Your task to perform on an android device: move a message to another label in the gmail app Image 0: 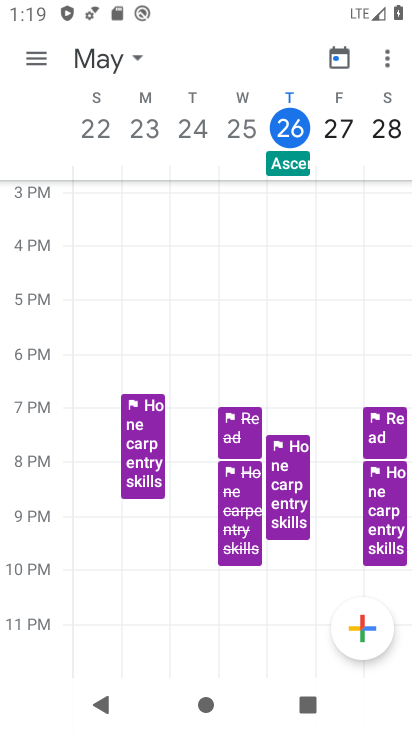
Step 0: press home button
Your task to perform on an android device: move a message to another label in the gmail app Image 1: 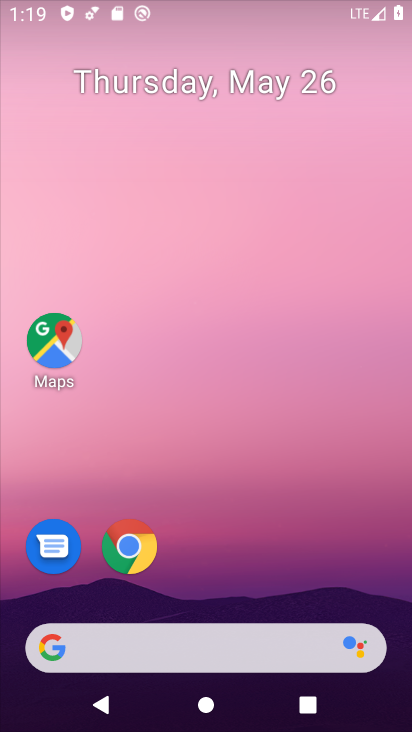
Step 1: drag from (307, 535) to (121, 38)
Your task to perform on an android device: move a message to another label in the gmail app Image 2: 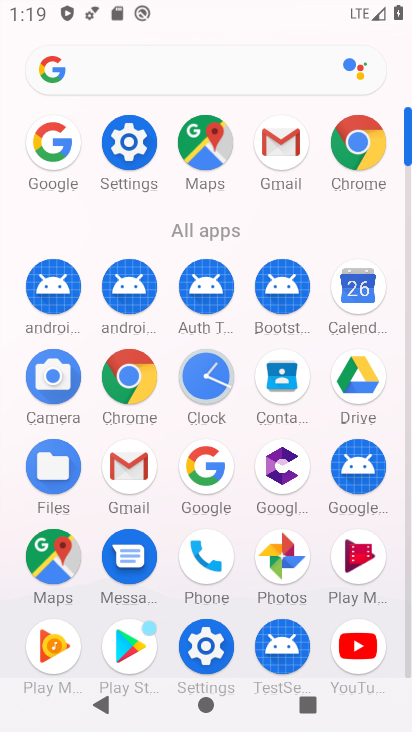
Step 2: click (132, 445)
Your task to perform on an android device: move a message to another label in the gmail app Image 3: 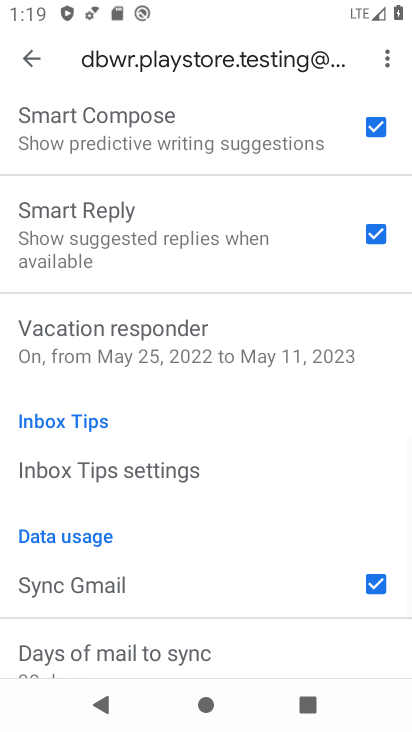
Step 3: click (31, 57)
Your task to perform on an android device: move a message to another label in the gmail app Image 4: 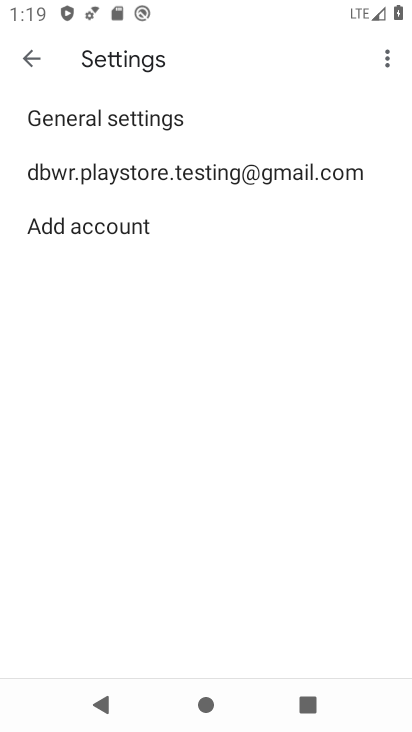
Step 4: click (42, 59)
Your task to perform on an android device: move a message to another label in the gmail app Image 5: 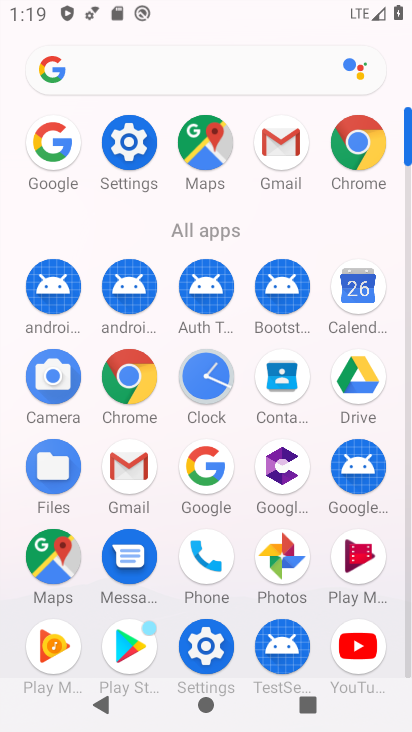
Step 5: click (129, 465)
Your task to perform on an android device: move a message to another label in the gmail app Image 6: 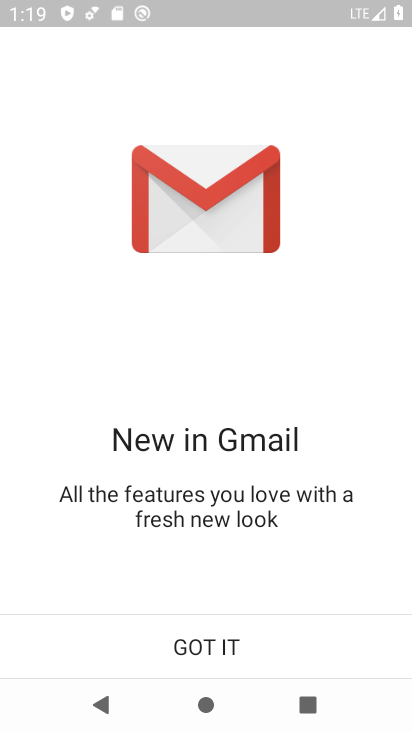
Step 6: click (214, 670)
Your task to perform on an android device: move a message to another label in the gmail app Image 7: 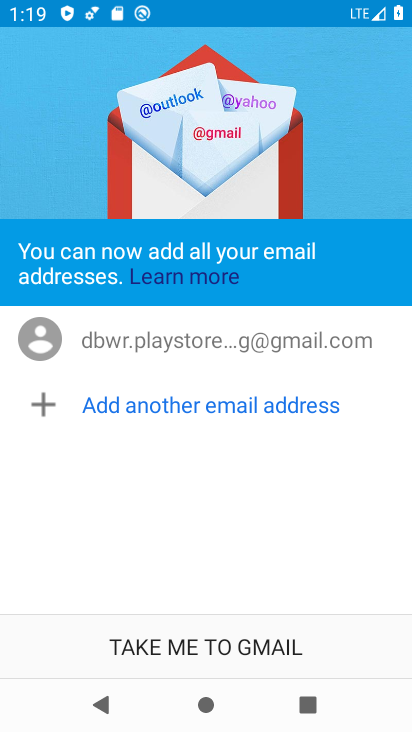
Step 7: click (272, 633)
Your task to perform on an android device: move a message to another label in the gmail app Image 8: 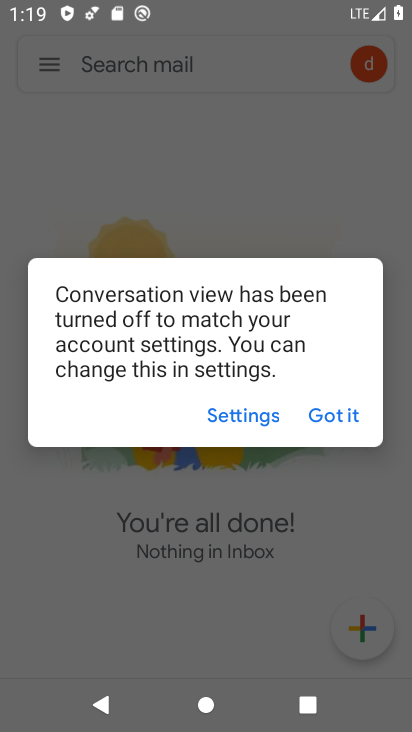
Step 8: click (45, 71)
Your task to perform on an android device: move a message to another label in the gmail app Image 9: 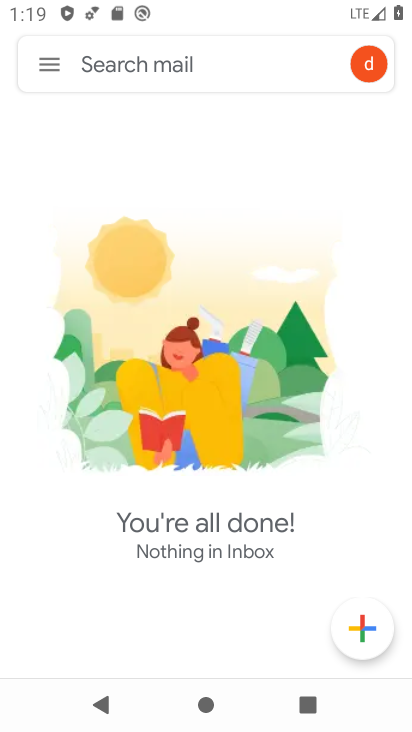
Step 9: click (55, 56)
Your task to perform on an android device: move a message to another label in the gmail app Image 10: 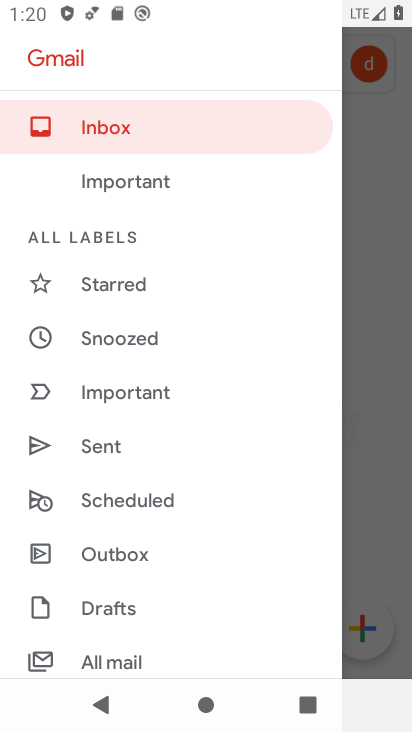
Step 10: click (161, 657)
Your task to perform on an android device: move a message to another label in the gmail app Image 11: 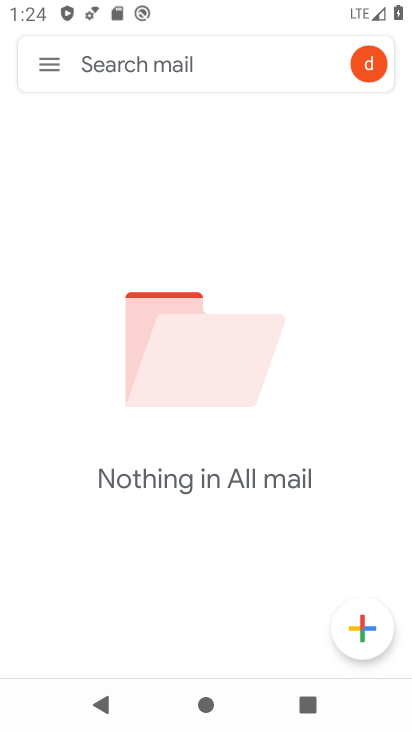
Step 11: task complete